Your task to perform on an android device: Go to settings Image 0: 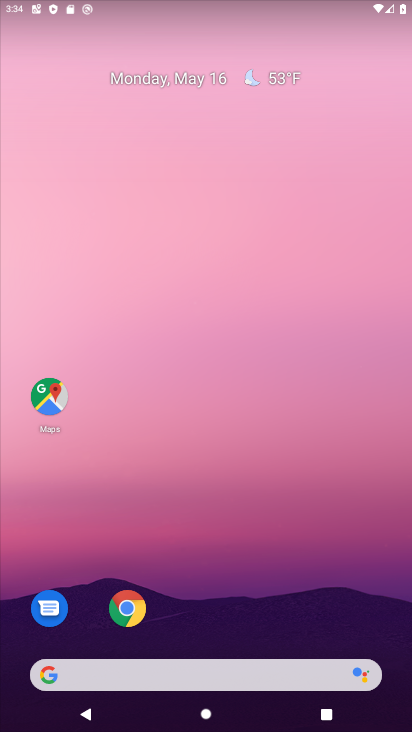
Step 0: drag from (263, 621) to (232, 172)
Your task to perform on an android device: Go to settings Image 1: 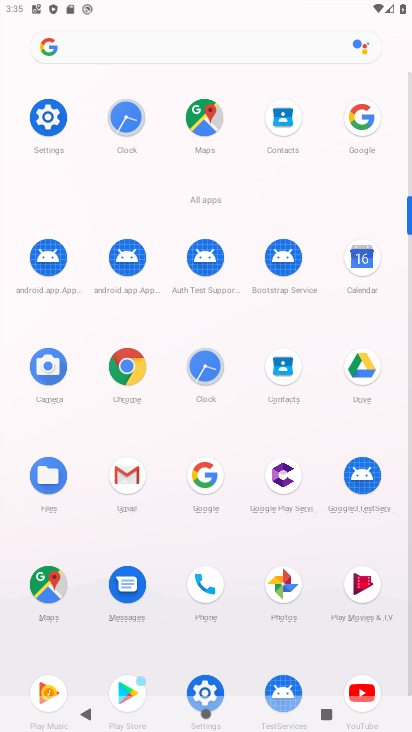
Step 1: click (47, 120)
Your task to perform on an android device: Go to settings Image 2: 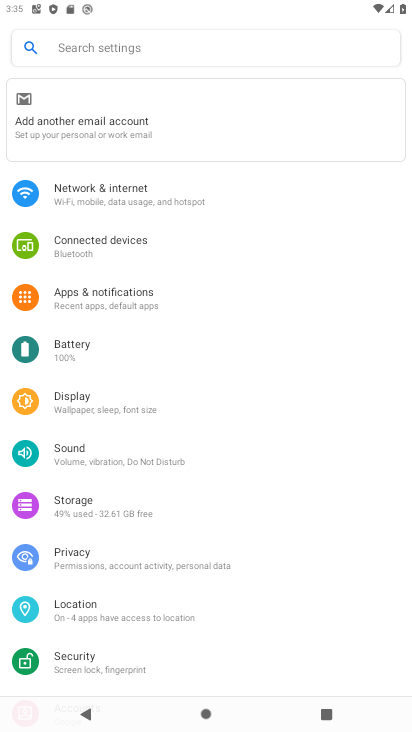
Step 2: task complete